Your task to perform on an android device: manage bookmarks in the chrome app Image 0: 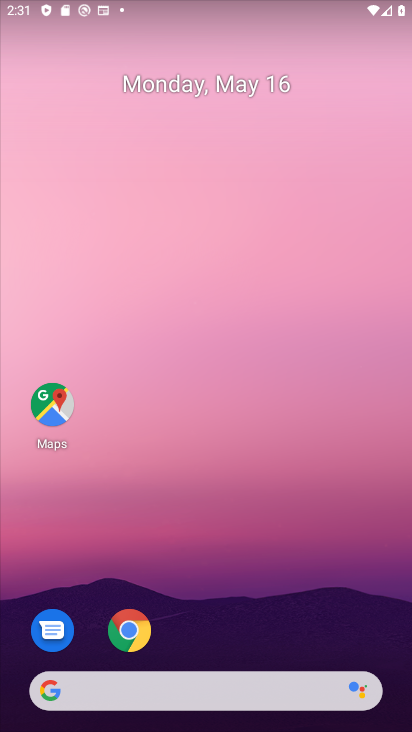
Step 0: drag from (221, 653) to (266, 128)
Your task to perform on an android device: manage bookmarks in the chrome app Image 1: 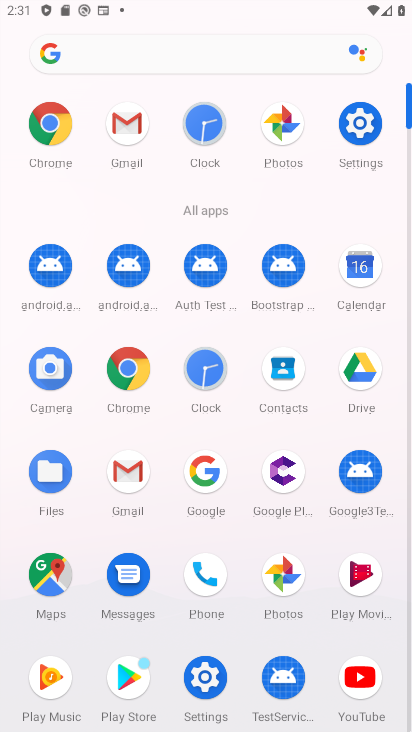
Step 1: click (127, 363)
Your task to perform on an android device: manage bookmarks in the chrome app Image 2: 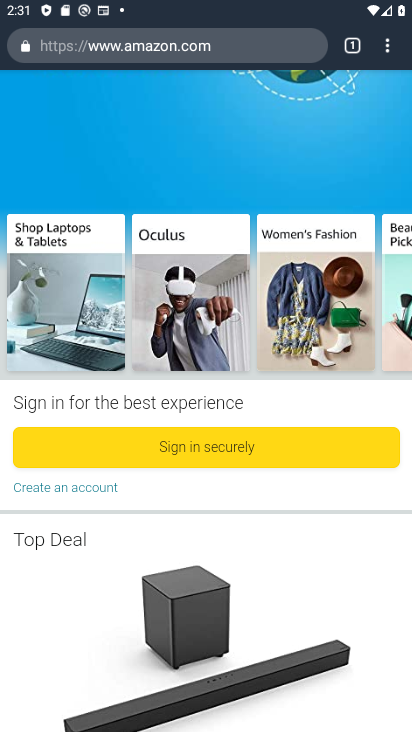
Step 2: click (384, 42)
Your task to perform on an android device: manage bookmarks in the chrome app Image 3: 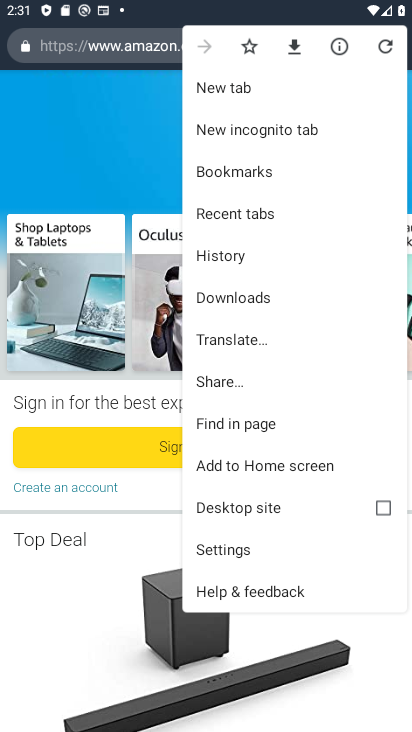
Step 3: click (277, 167)
Your task to perform on an android device: manage bookmarks in the chrome app Image 4: 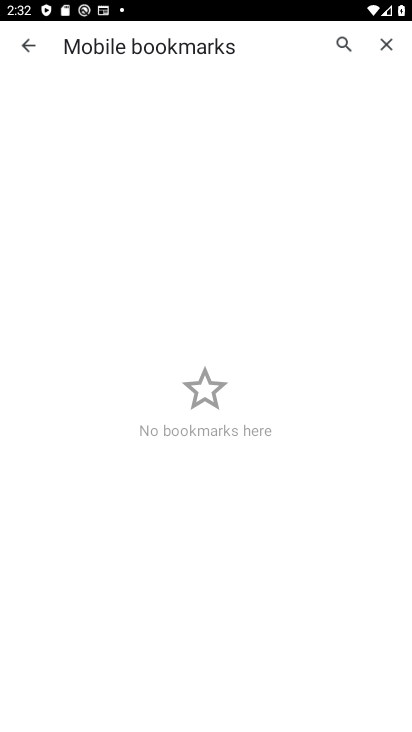
Step 4: task complete